Your task to perform on an android device: Open the stopwatch Image 0: 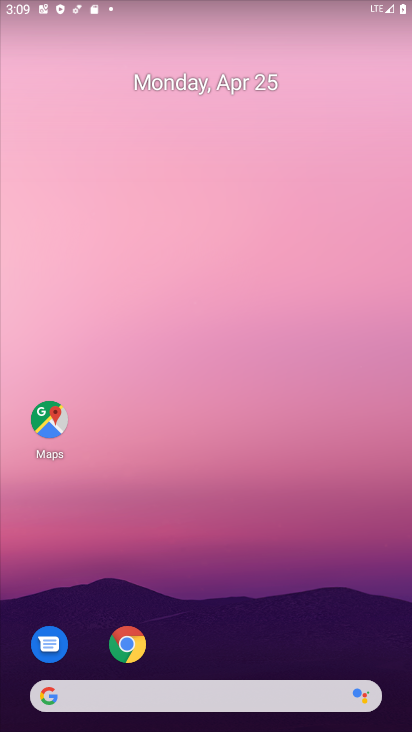
Step 0: drag from (228, 639) to (215, 144)
Your task to perform on an android device: Open the stopwatch Image 1: 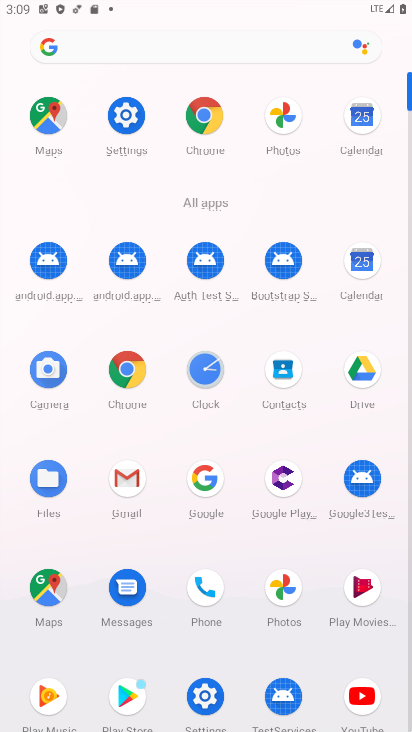
Step 1: click (203, 368)
Your task to perform on an android device: Open the stopwatch Image 2: 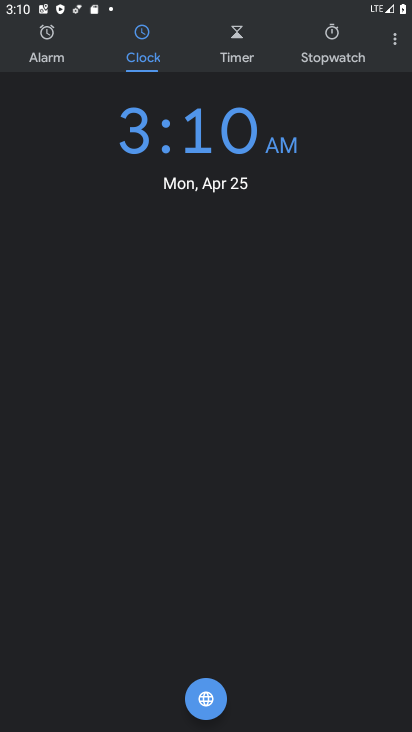
Step 2: click (342, 57)
Your task to perform on an android device: Open the stopwatch Image 3: 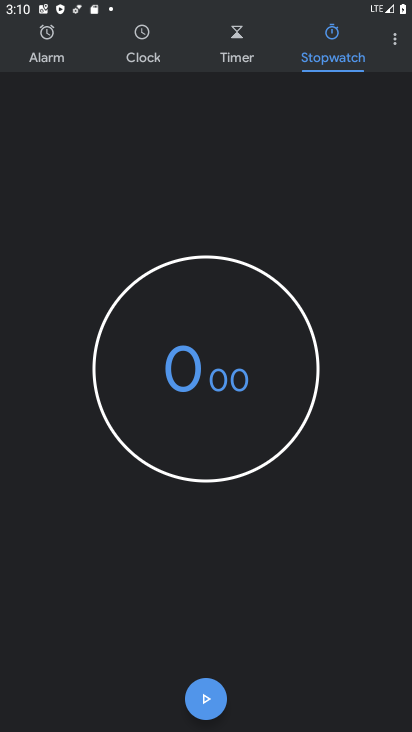
Step 3: task complete